Your task to perform on an android device: Open eBay Image 0: 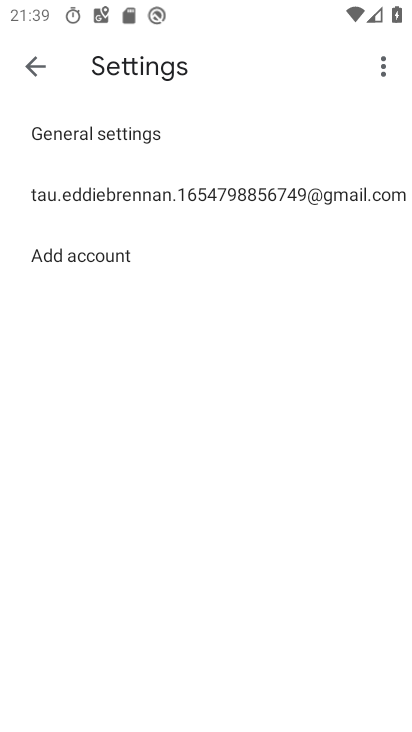
Step 0: press home button
Your task to perform on an android device: Open eBay Image 1: 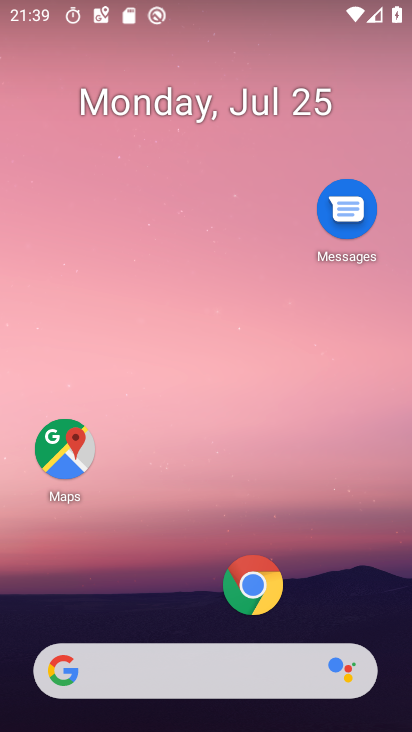
Step 1: click (257, 582)
Your task to perform on an android device: Open eBay Image 2: 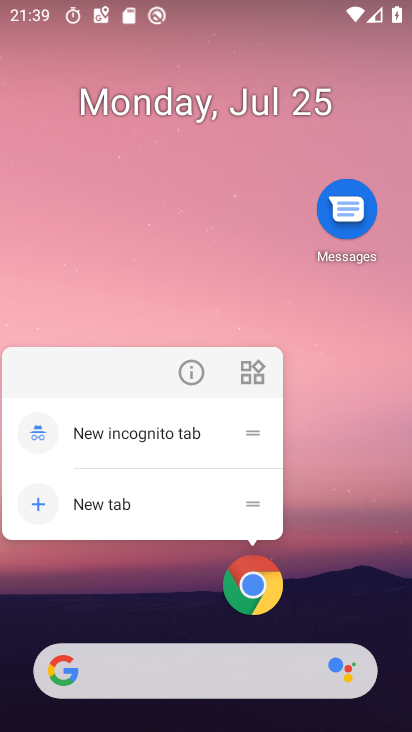
Step 2: click (255, 593)
Your task to perform on an android device: Open eBay Image 3: 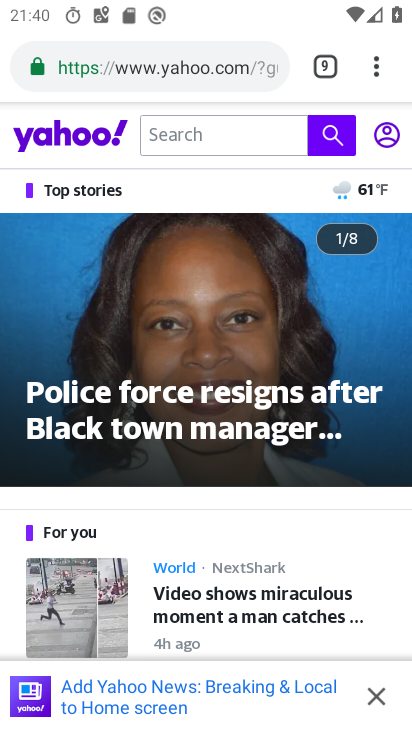
Step 3: drag from (372, 68) to (130, 142)
Your task to perform on an android device: Open eBay Image 4: 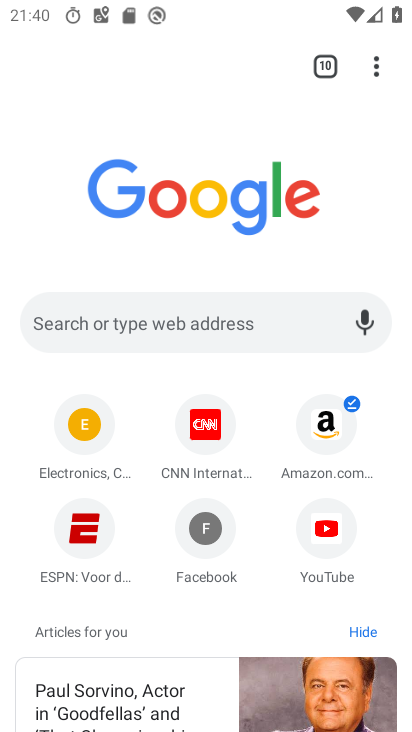
Step 4: click (82, 430)
Your task to perform on an android device: Open eBay Image 5: 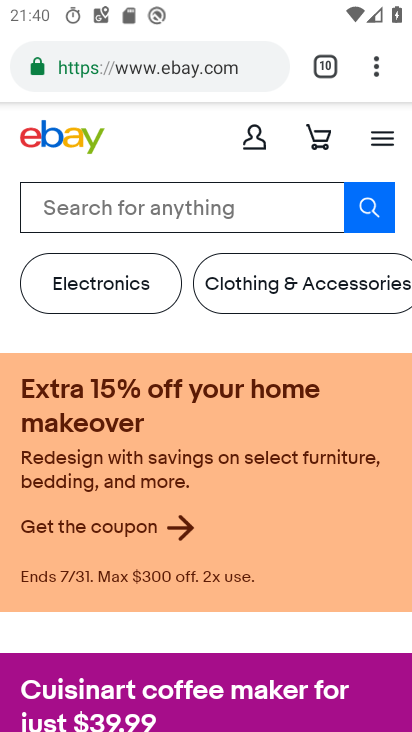
Step 5: task complete